Your task to perform on an android device: Open settings on Google Maps Image 0: 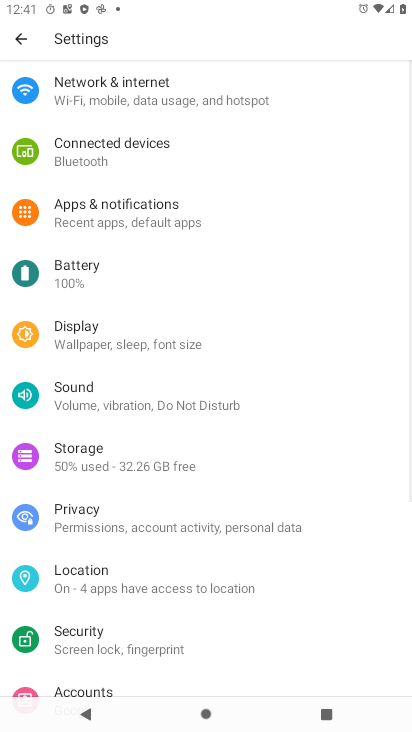
Step 0: press home button
Your task to perform on an android device: Open settings on Google Maps Image 1: 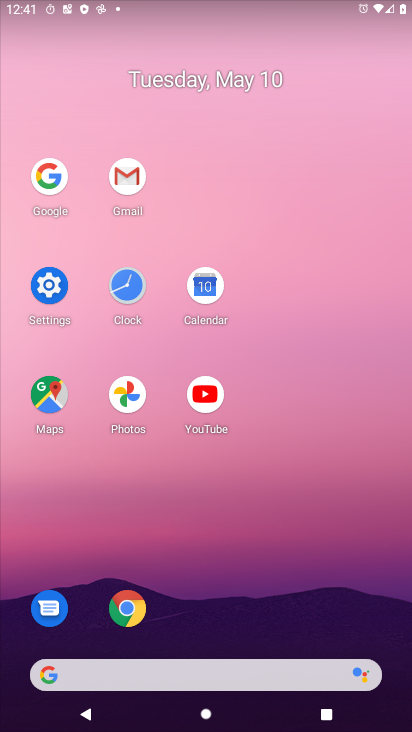
Step 1: click (47, 406)
Your task to perform on an android device: Open settings on Google Maps Image 2: 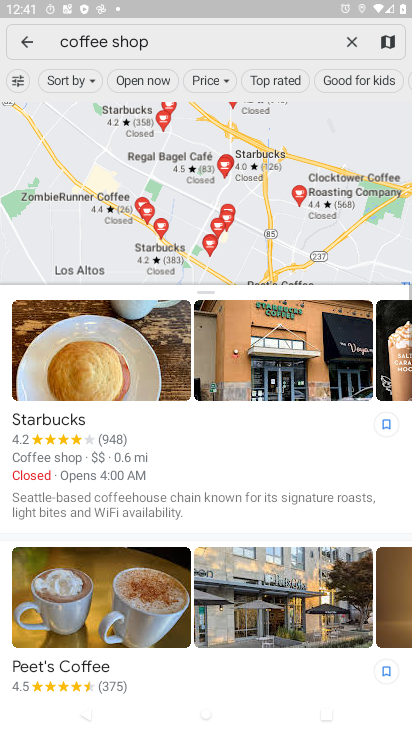
Step 2: click (25, 42)
Your task to perform on an android device: Open settings on Google Maps Image 3: 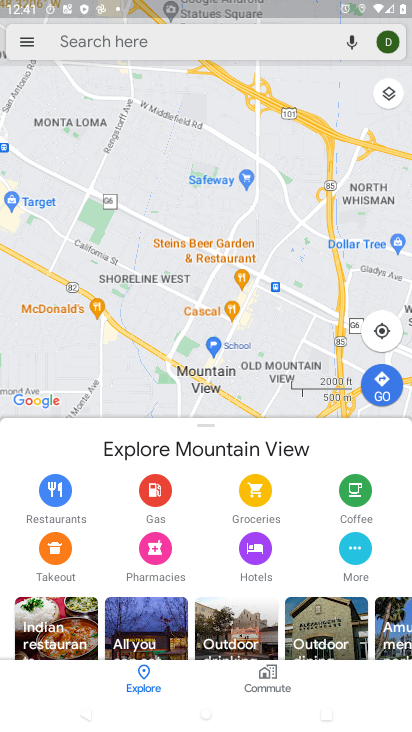
Step 3: click (25, 42)
Your task to perform on an android device: Open settings on Google Maps Image 4: 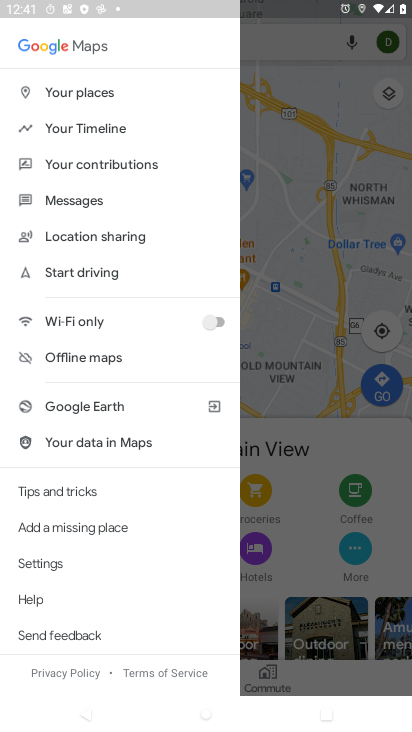
Step 4: click (52, 567)
Your task to perform on an android device: Open settings on Google Maps Image 5: 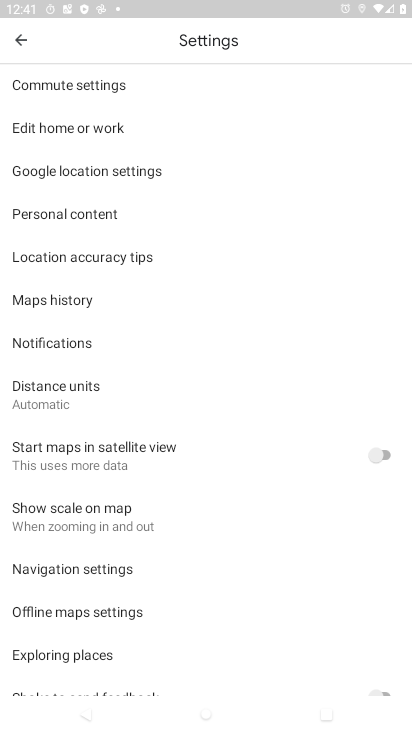
Step 5: task complete